Your task to perform on an android device: Open accessibility settings Image 0: 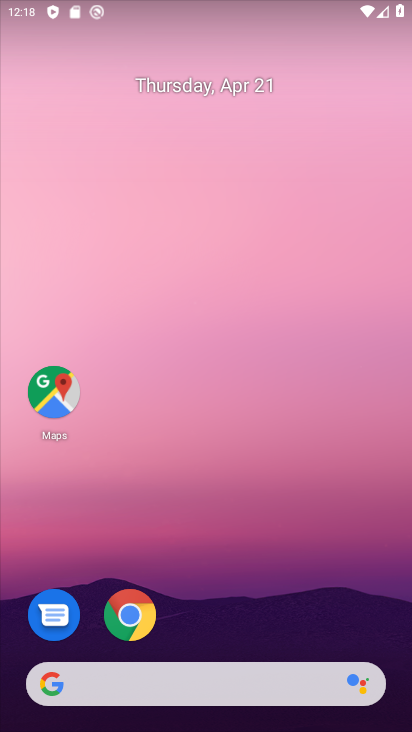
Step 0: drag from (252, 337) to (206, 183)
Your task to perform on an android device: Open accessibility settings Image 1: 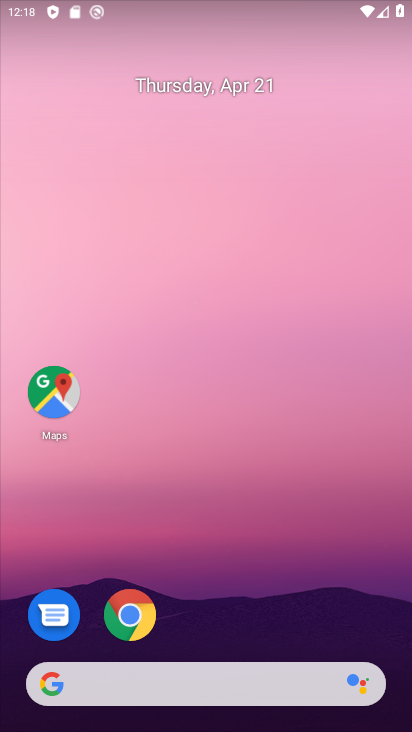
Step 1: drag from (247, 622) to (100, 8)
Your task to perform on an android device: Open accessibility settings Image 2: 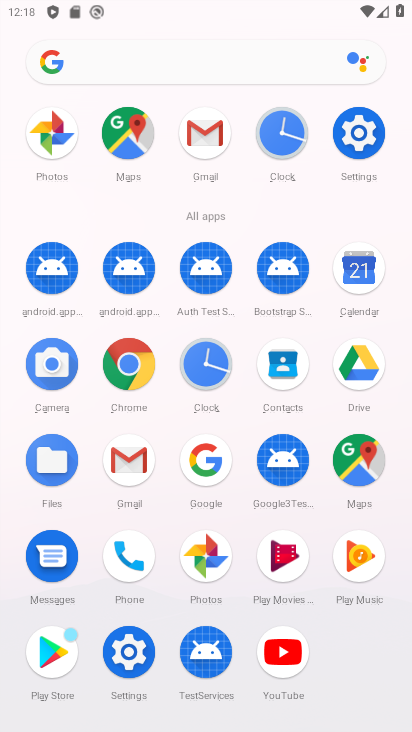
Step 2: click (352, 142)
Your task to perform on an android device: Open accessibility settings Image 3: 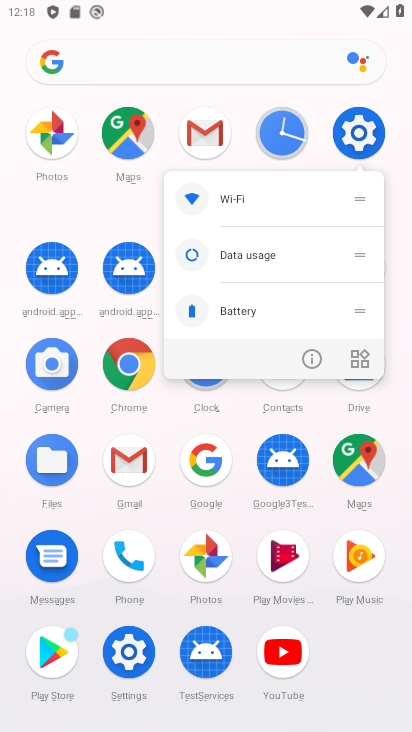
Step 3: click (352, 141)
Your task to perform on an android device: Open accessibility settings Image 4: 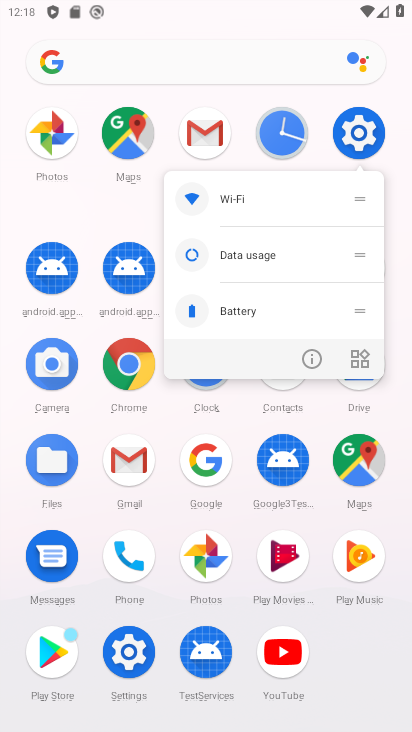
Step 4: click (359, 142)
Your task to perform on an android device: Open accessibility settings Image 5: 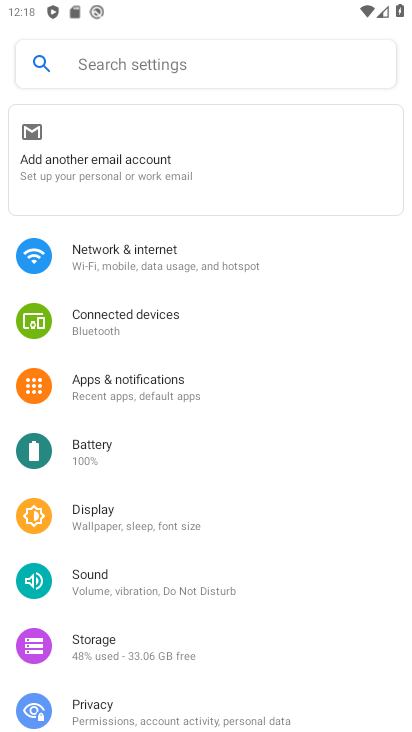
Step 5: drag from (120, 662) to (153, 318)
Your task to perform on an android device: Open accessibility settings Image 6: 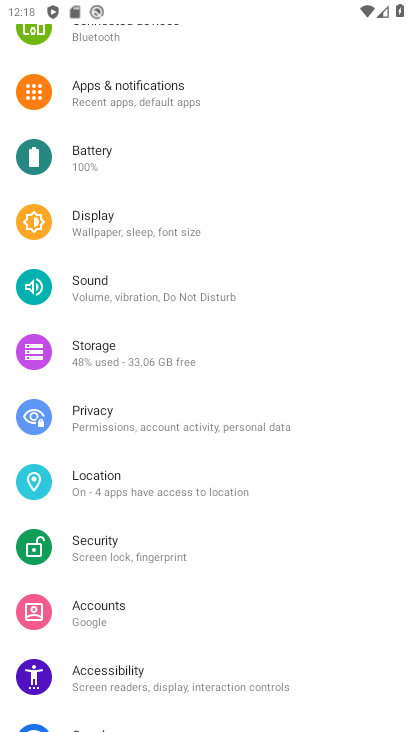
Step 6: click (75, 694)
Your task to perform on an android device: Open accessibility settings Image 7: 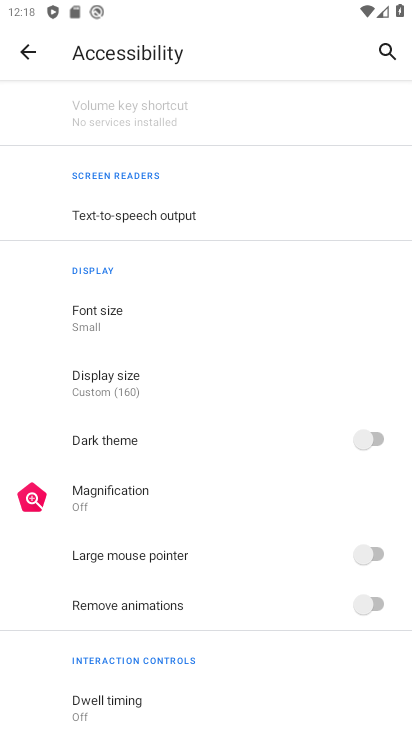
Step 7: task complete